Your task to perform on an android device: Open Google Chrome and click the shortcut for Amazon.com Image 0: 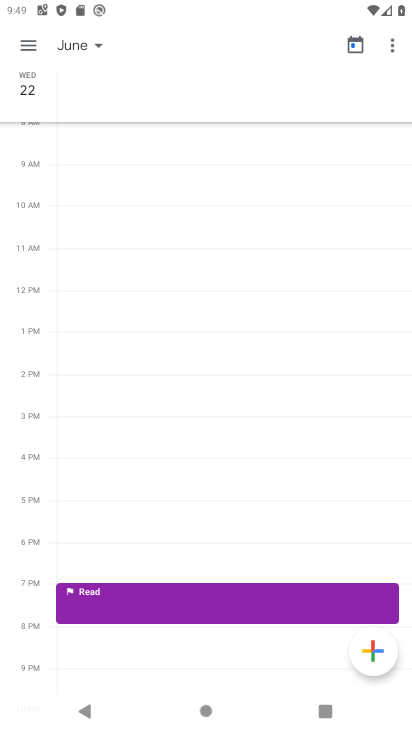
Step 0: press home button
Your task to perform on an android device: Open Google Chrome and click the shortcut for Amazon.com Image 1: 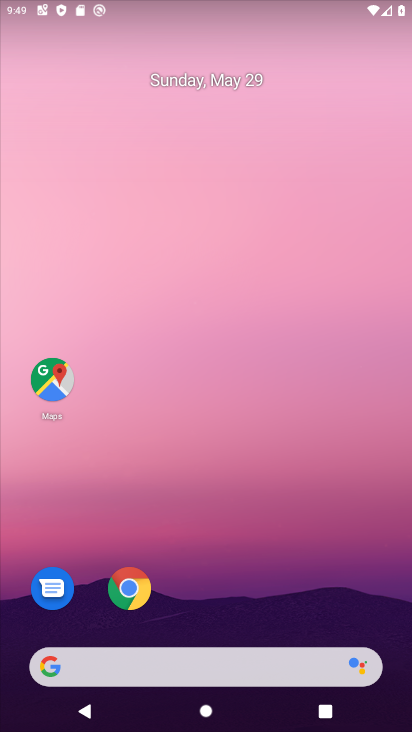
Step 1: drag from (261, 573) to (208, 139)
Your task to perform on an android device: Open Google Chrome and click the shortcut for Amazon.com Image 2: 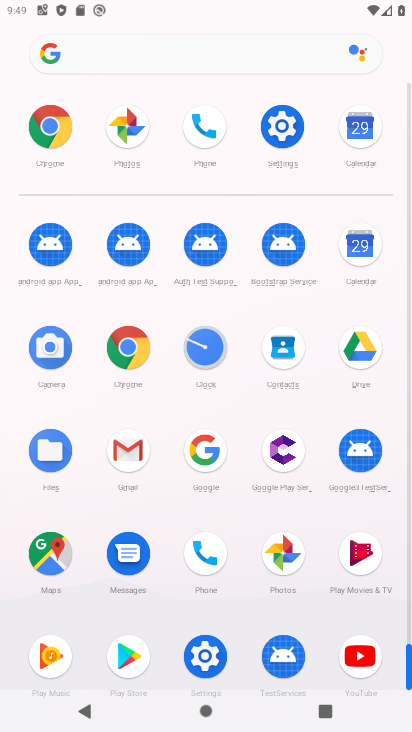
Step 2: click (124, 368)
Your task to perform on an android device: Open Google Chrome and click the shortcut for Amazon.com Image 3: 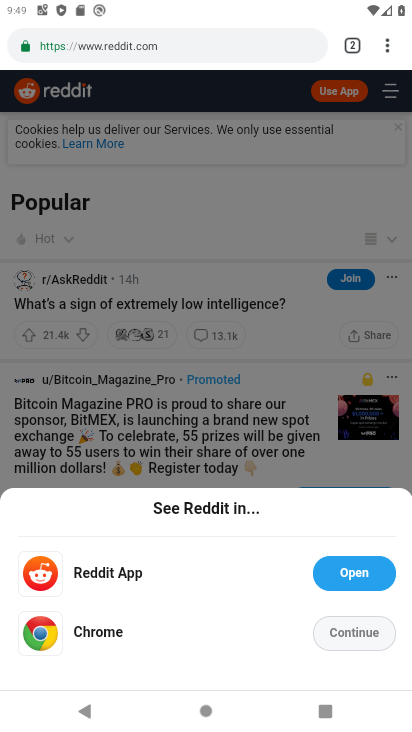
Step 3: press back button
Your task to perform on an android device: Open Google Chrome and click the shortcut for Amazon.com Image 4: 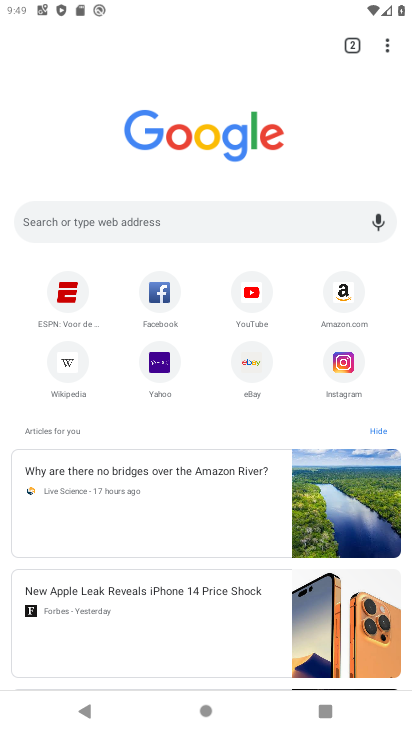
Step 4: click (348, 297)
Your task to perform on an android device: Open Google Chrome and click the shortcut for Amazon.com Image 5: 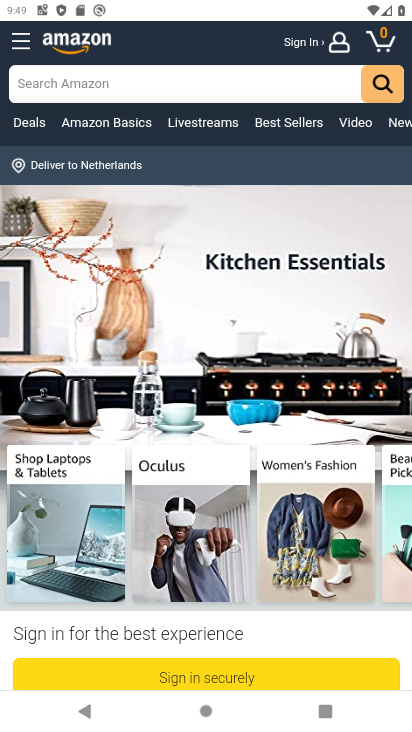
Step 5: task complete